Your task to perform on an android device: open a new tab in the chrome app Image 0: 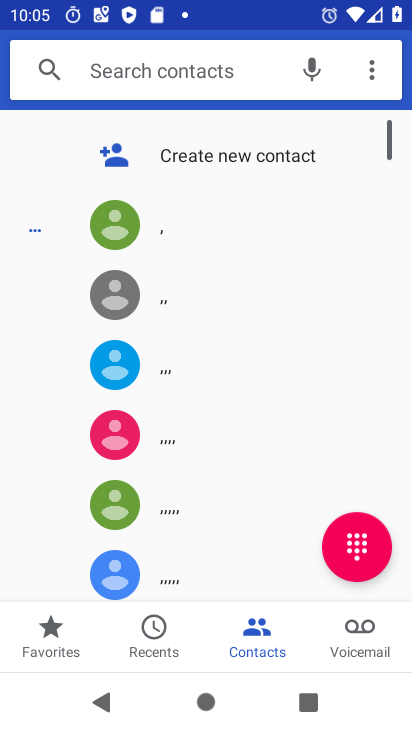
Step 0: press home button
Your task to perform on an android device: open a new tab in the chrome app Image 1: 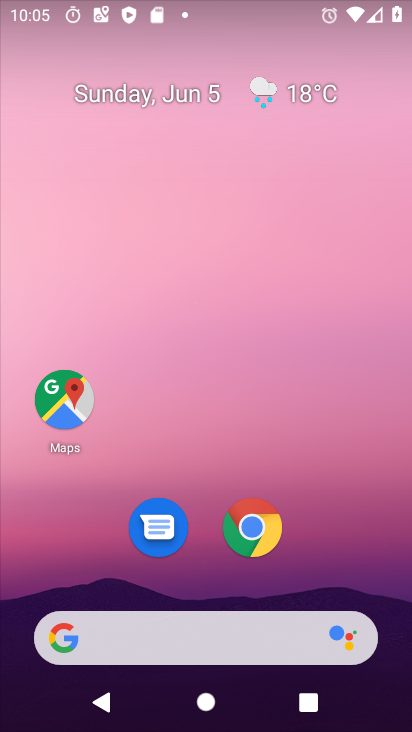
Step 1: drag from (311, 362) to (410, 421)
Your task to perform on an android device: open a new tab in the chrome app Image 2: 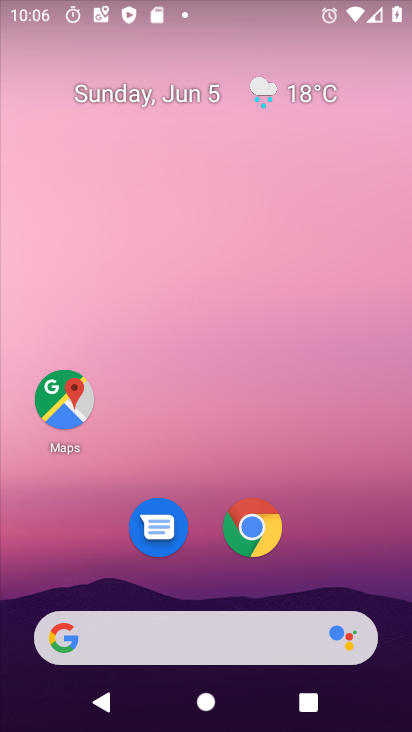
Step 2: drag from (328, 545) to (287, 15)
Your task to perform on an android device: open a new tab in the chrome app Image 3: 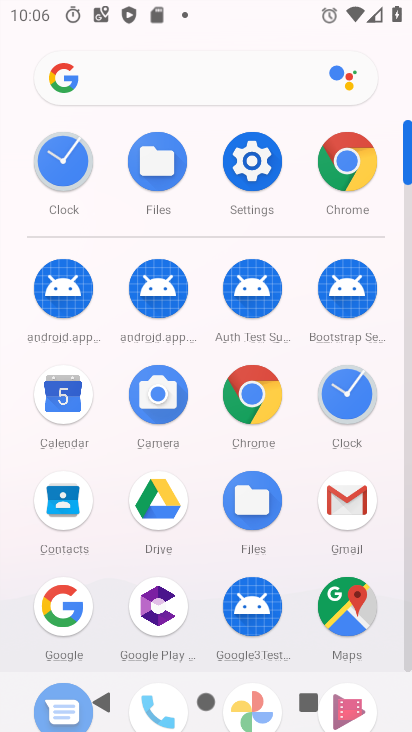
Step 3: click (368, 183)
Your task to perform on an android device: open a new tab in the chrome app Image 4: 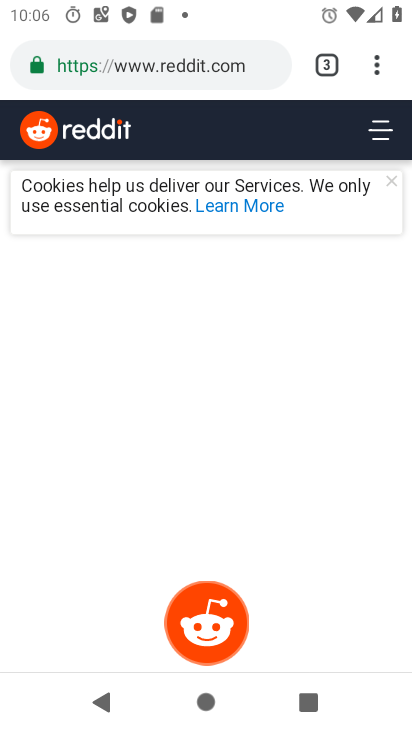
Step 4: task complete